Your task to perform on an android device: Check the settings for the Google Play Movies app Image 0: 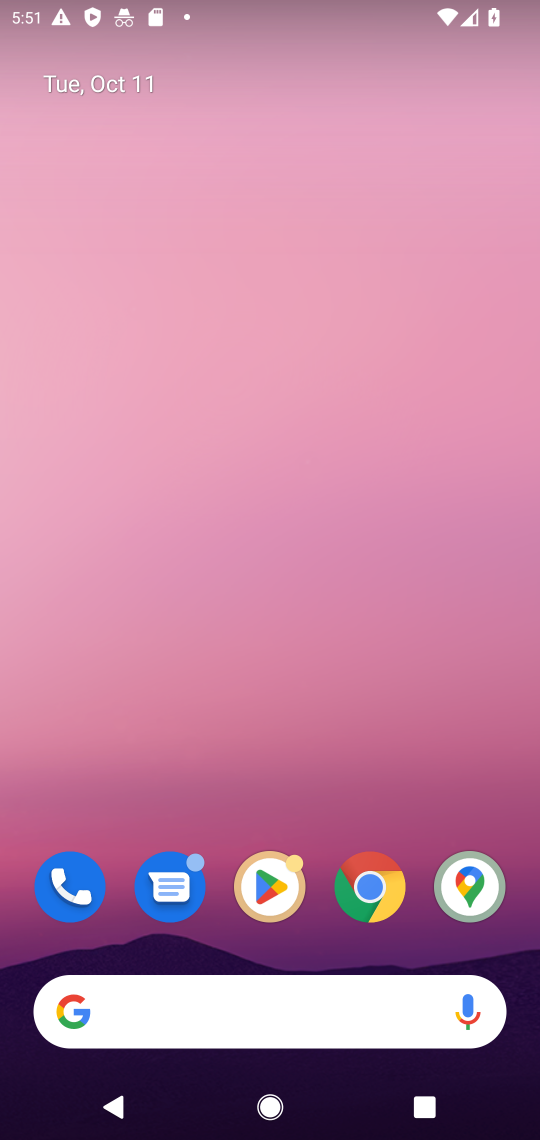
Step 0: click (182, 1019)
Your task to perform on an android device: Check the settings for the Google Play Movies app Image 1: 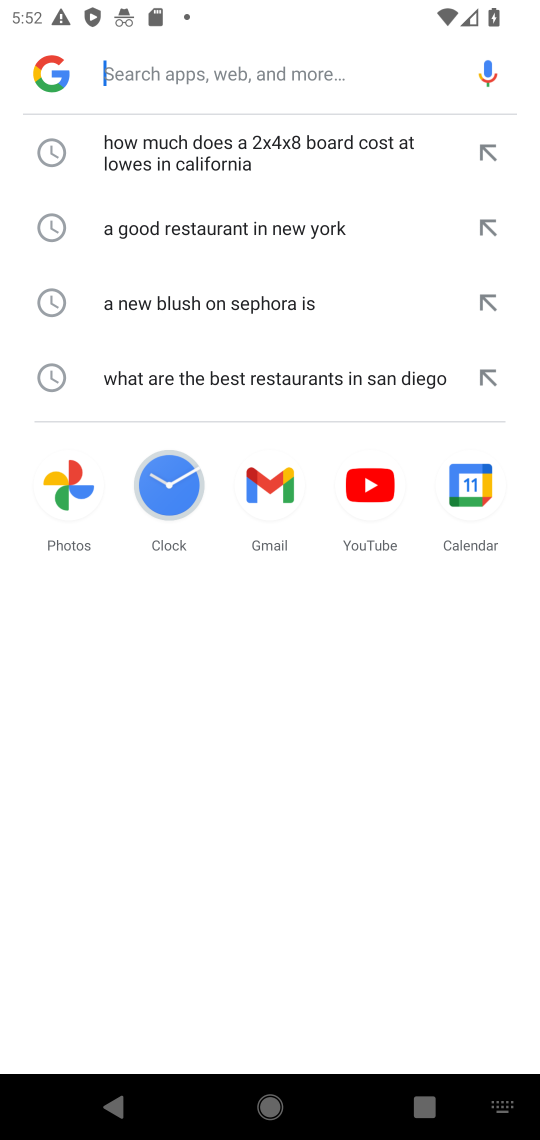
Step 1: press home button
Your task to perform on an android device: Check the settings for the Google Play Movies app Image 2: 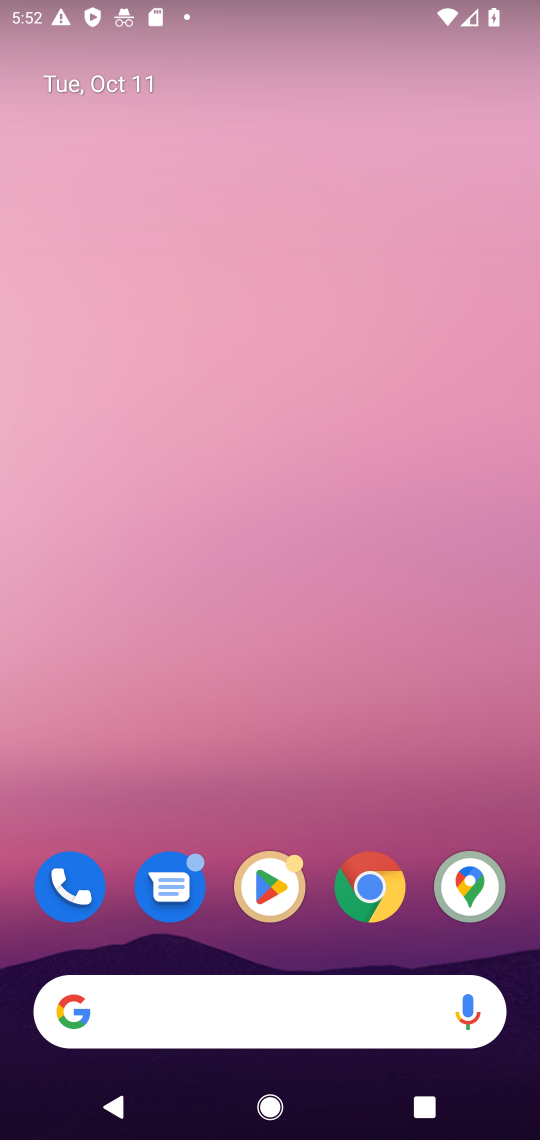
Step 2: click (275, 886)
Your task to perform on an android device: Check the settings for the Google Play Movies app Image 3: 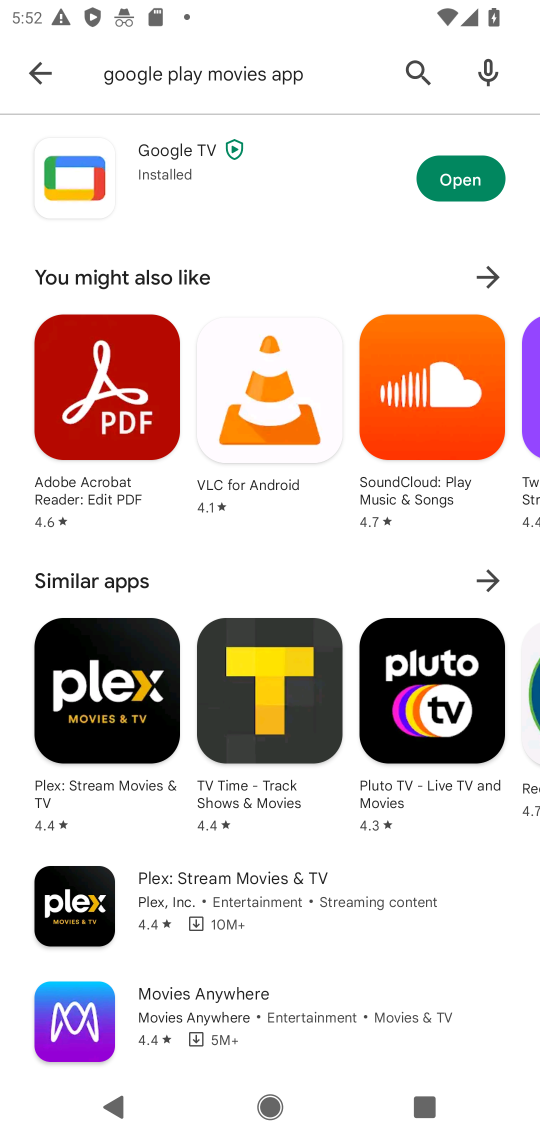
Step 3: click (37, 72)
Your task to perform on an android device: Check the settings for the Google Play Movies app Image 4: 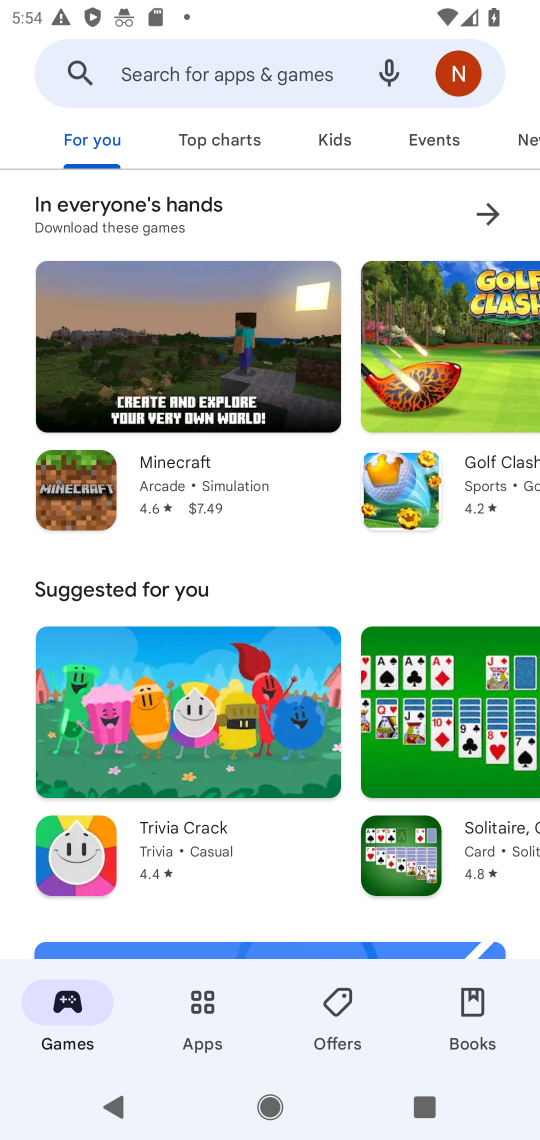
Step 4: click (249, 70)
Your task to perform on an android device: Check the settings for the Google Play Movies app Image 5: 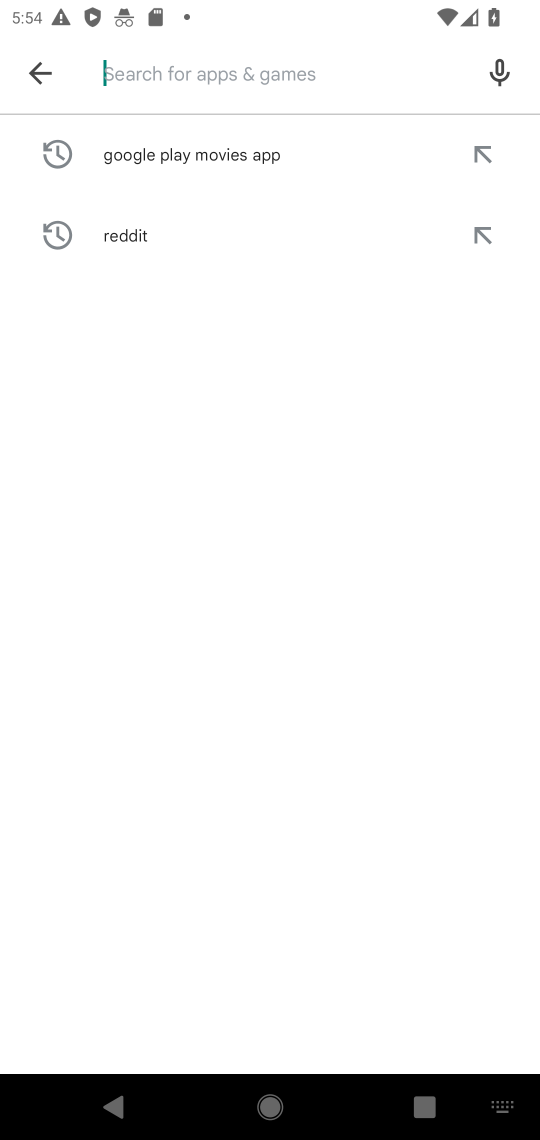
Step 5: type "Google Play Movies app"
Your task to perform on an android device: Check the settings for the Google Play Movies app Image 6: 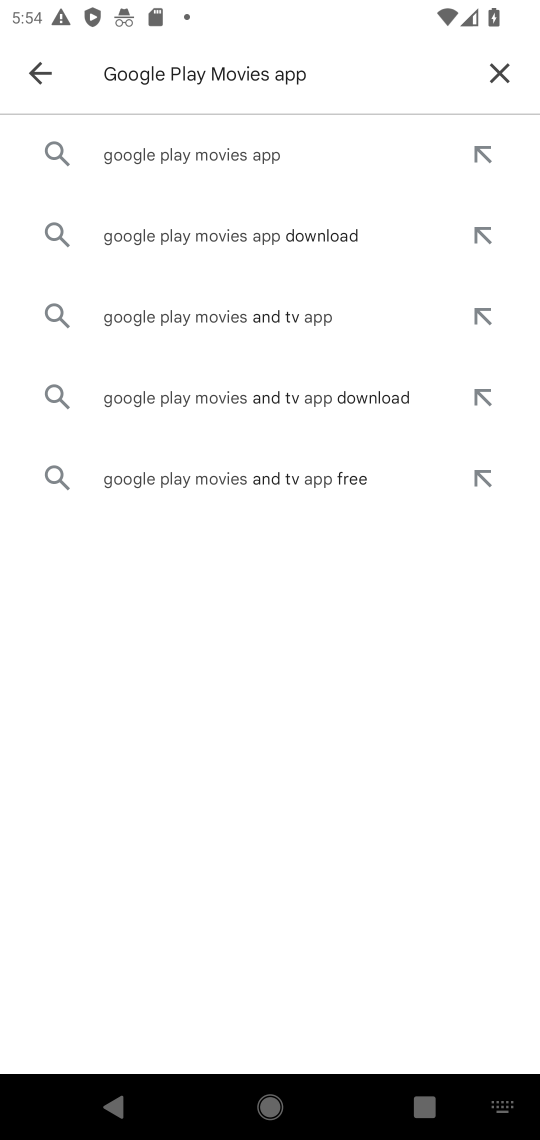
Step 6: click (217, 160)
Your task to perform on an android device: Check the settings for the Google Play Movies app Image 7: 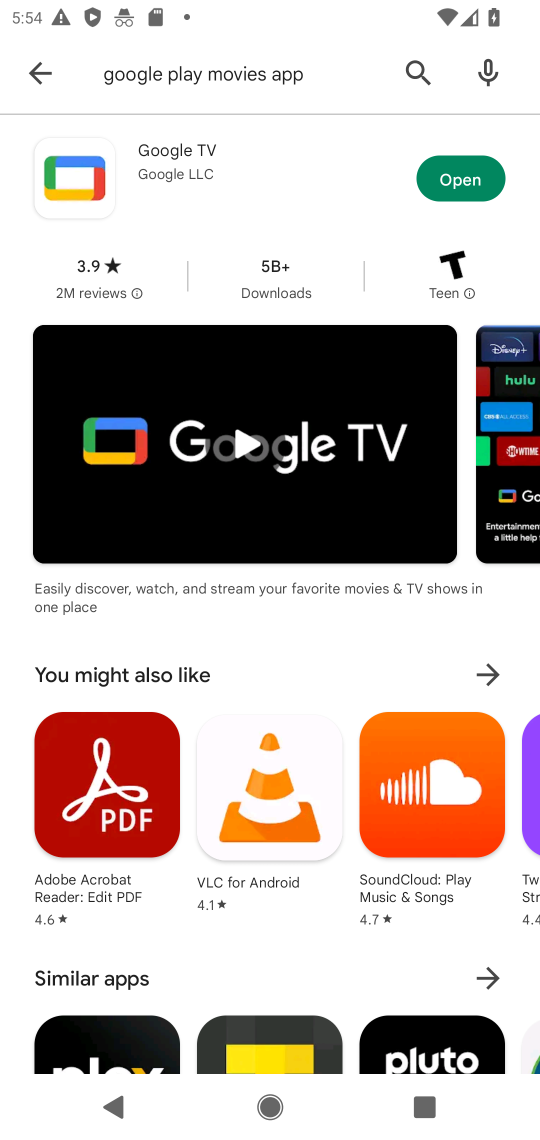
Step 7: click (477, 178)
Your task to perform on an android device: Check the settings for the Google Play Movies app Image 8: 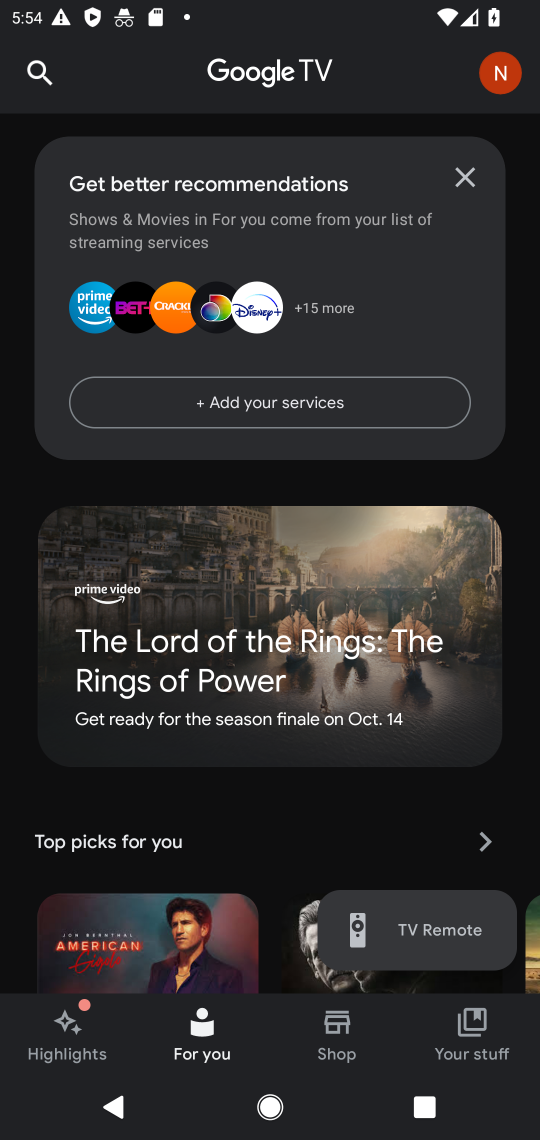
Step 8: click (507, 69)
Your task to perform on an android device: Check the settings for the Google Play Movies app Image 9: 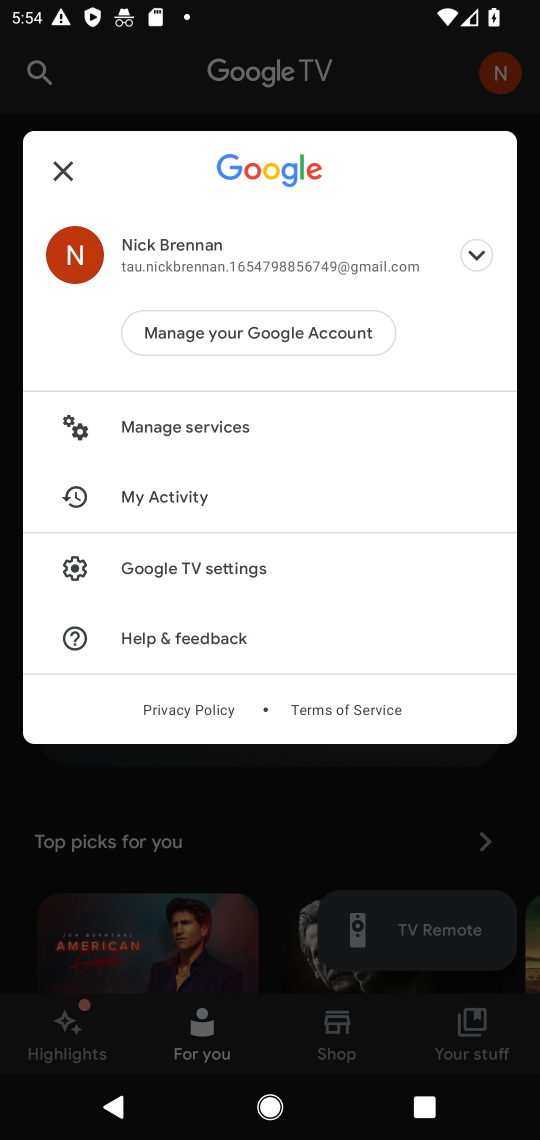
Step 9: click (228, 571)
Your task to perform on an android device: Check the settings for the Google Play Movies app Image 10: 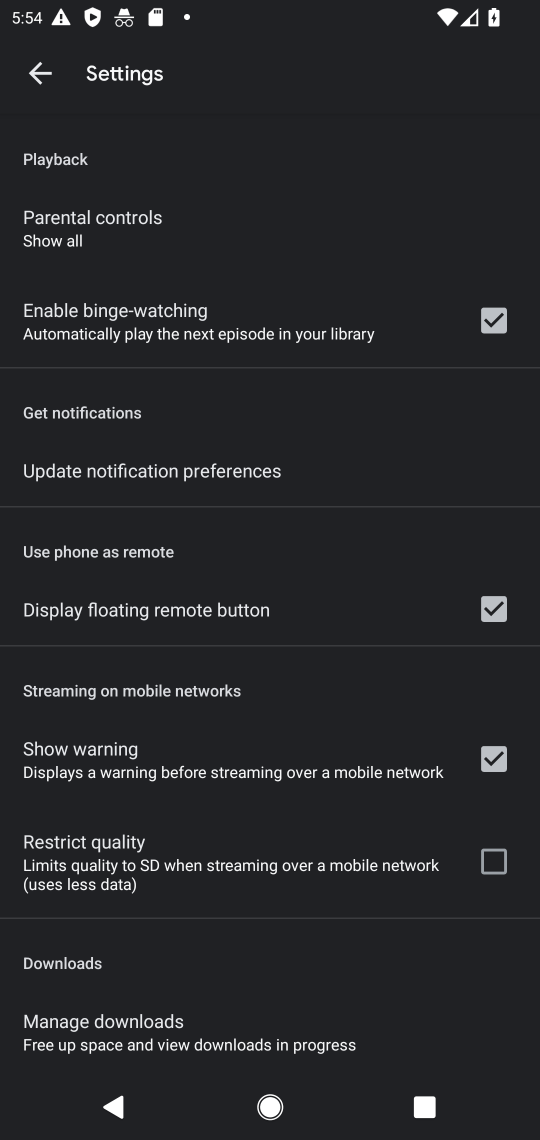
Step 10: task complete